Your task to perform on an android device: uninstall "McDonald's" Image 0: 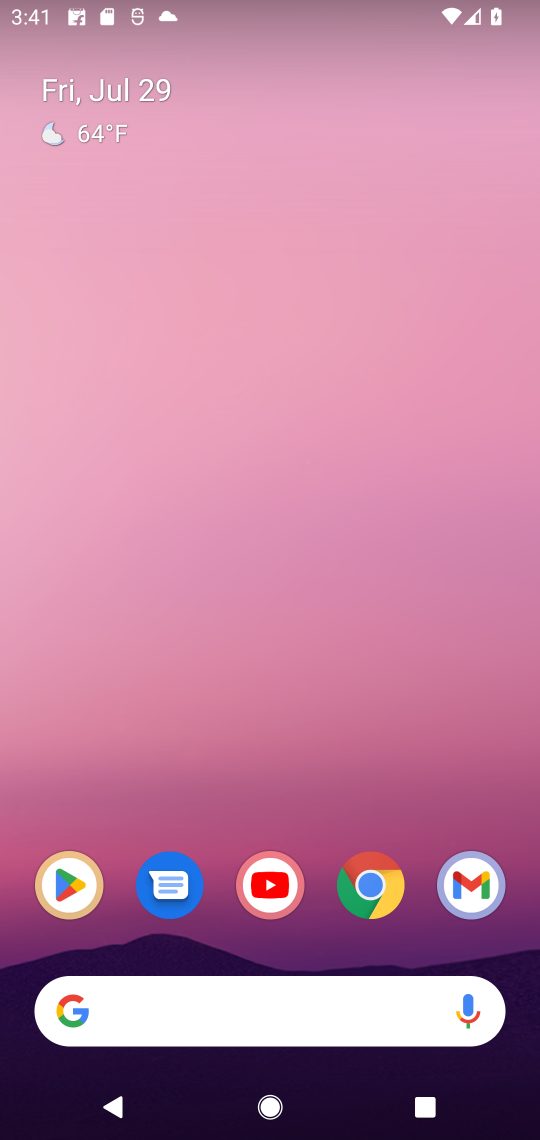
Step 0: click (88, 891)
Your task to perform on an android device: uninstall "McDonald's" Image 1: 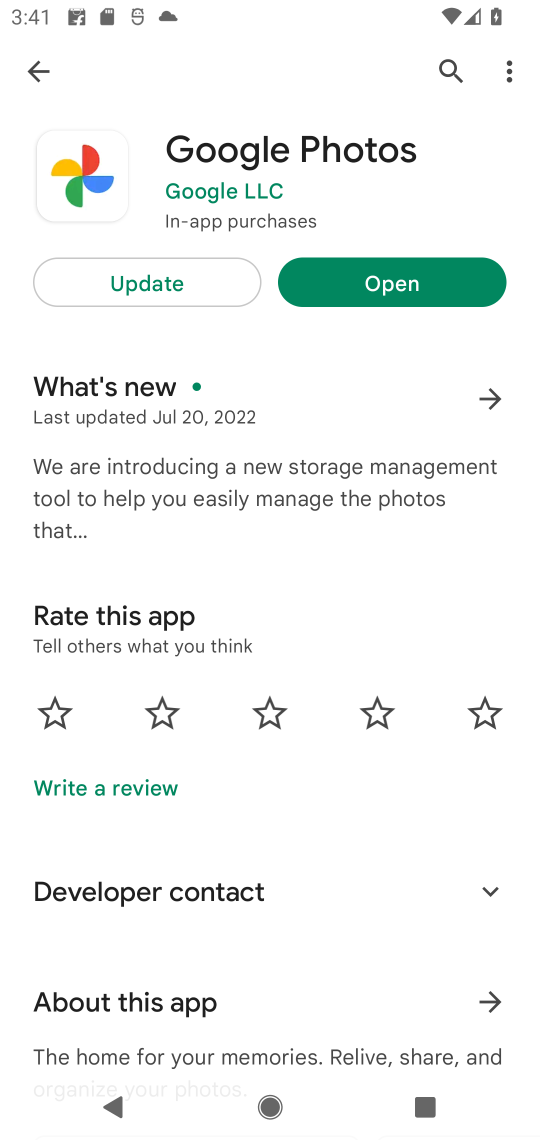
Step 1: click (453, 60)
Your task to perform on an android device: uninstall "McDonald's" Image 2: 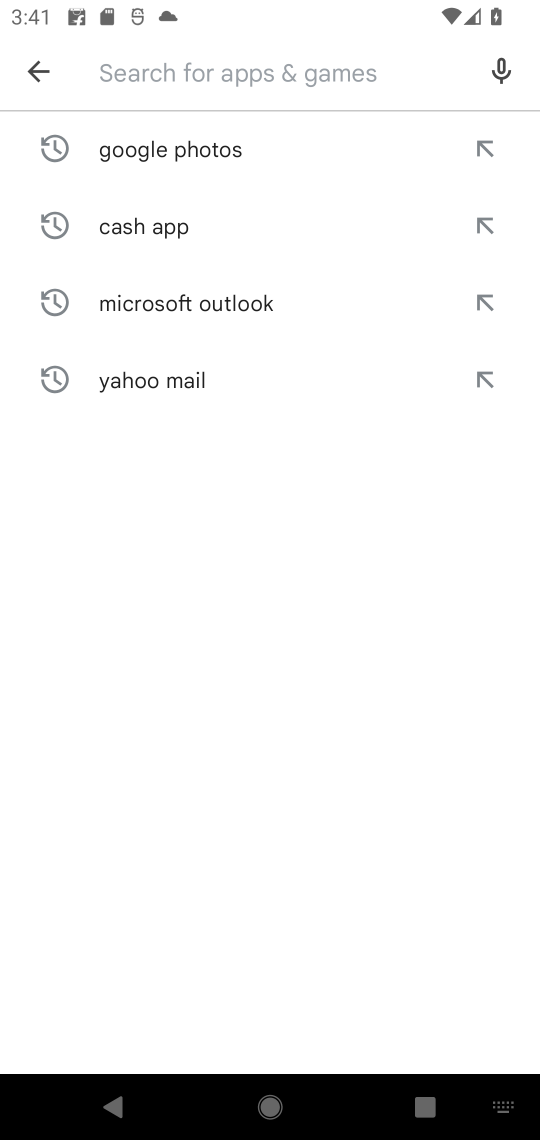
Step 2: type "McDonald's"
Your task to perform on an android device: uninstall "McDonald's" Image 3: 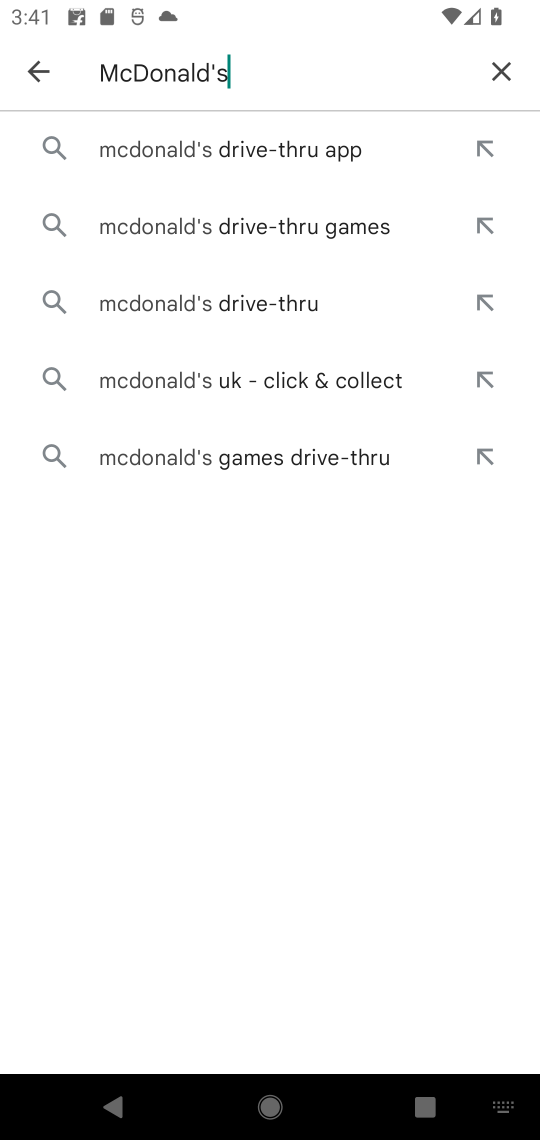
Step 3: click (114, 146)
Your task to perform on an android device: uninstall "McDonald's" Image 4: 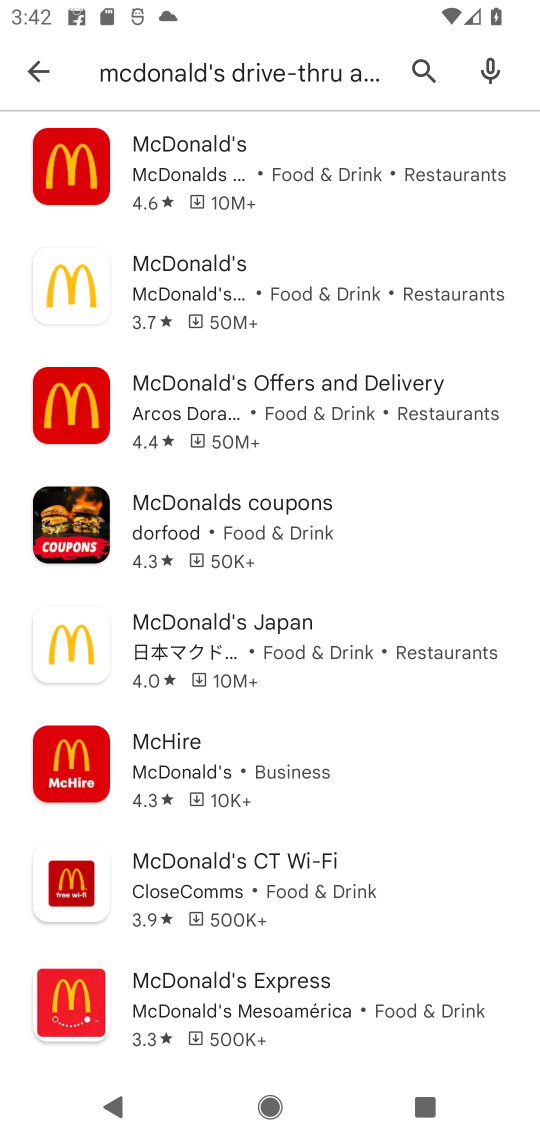
Step 4: task complete